Your task to perform on an android device: change timer sound Image 0: 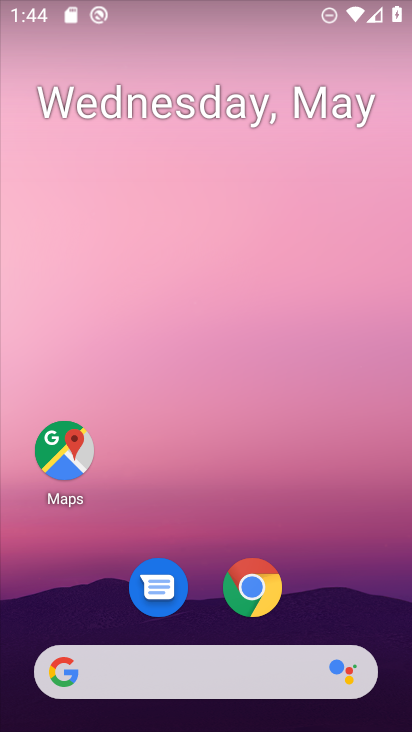
Step 0: drag from (311, 597) to (322, 203)
Your task to perform on an android device: change timer sound Image 1: 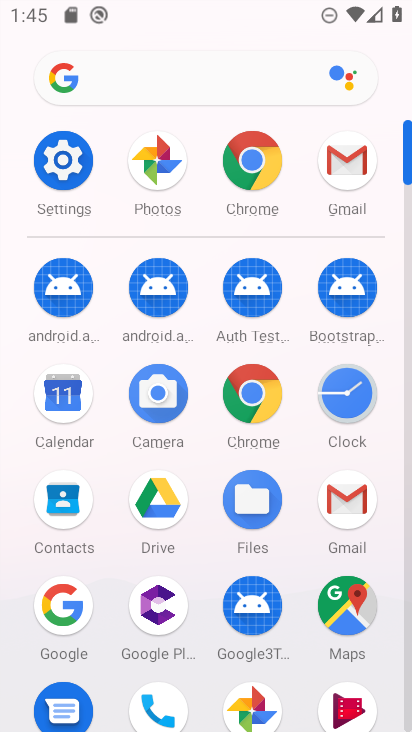
Step 1: drag from (274, 639) to (267, 373)
Your task to perform on an android device: change timer sound Image 2: 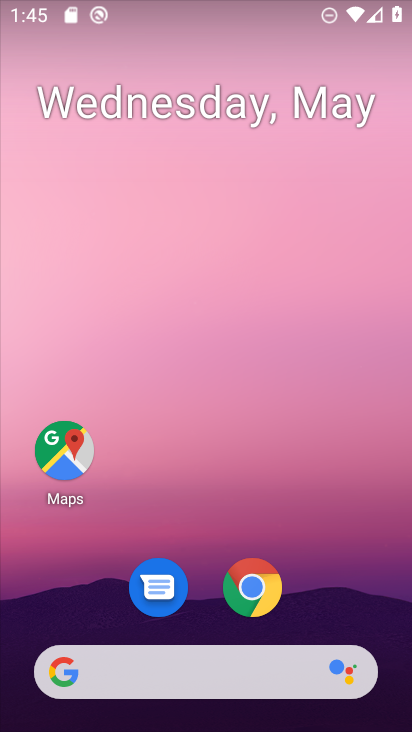
Step 2: click (347, 412)
Your task to perform on an android device: change timer sound Image 3: 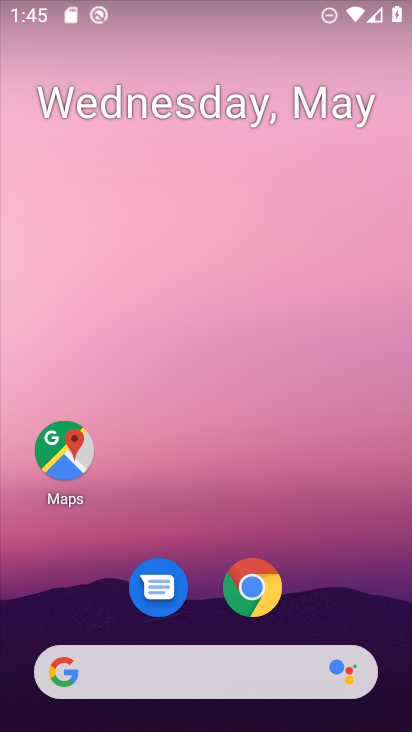
Step 3: click (313, 184)
Your task to perform on an android device: change timer sound Image 4: 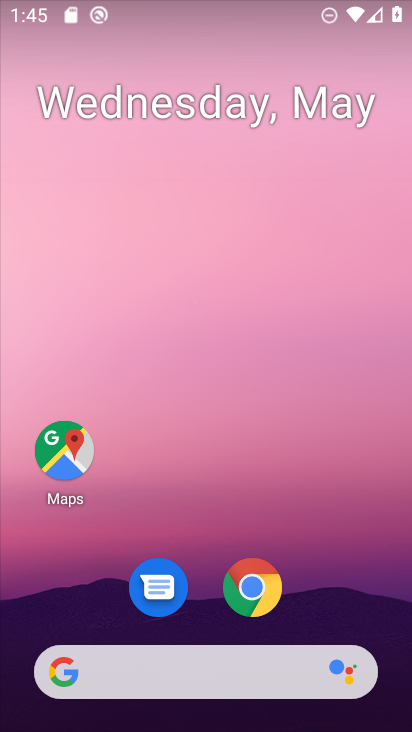
Step 4: drag from (198, 605) to (199, 189)
Your task to perform on an android device: change timer sound Image 5: 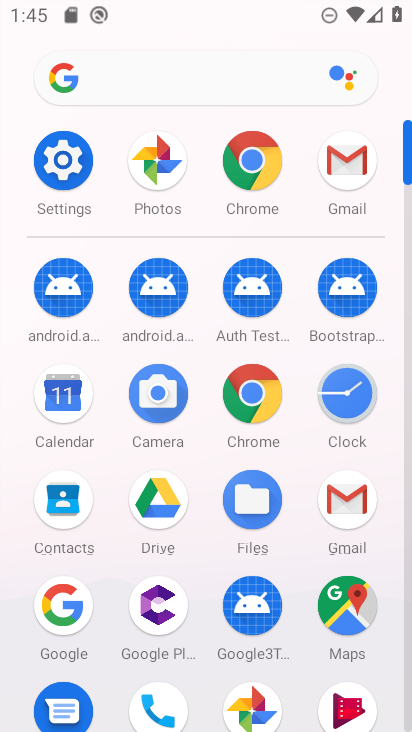
Step 5: click (350, 442)
Your task to perform on an android device: change timer sound Image 6: 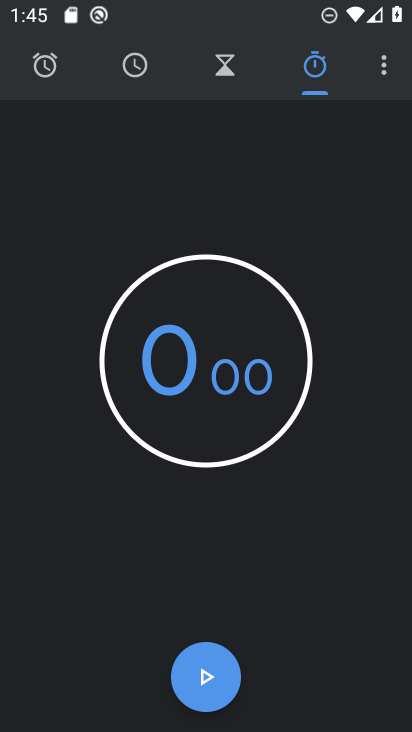
Step 6: click (390, 70)
Your task to perform on an android device: change timer sound Image 7: 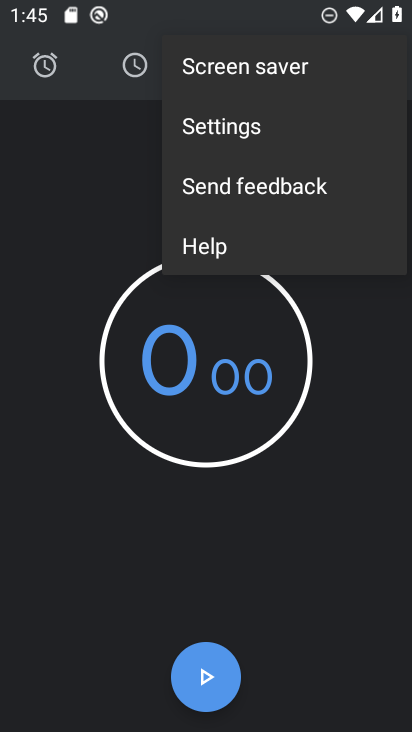
Step 7: click (241, 112)
Your task to perform on an android device: change timer sound Image 8: 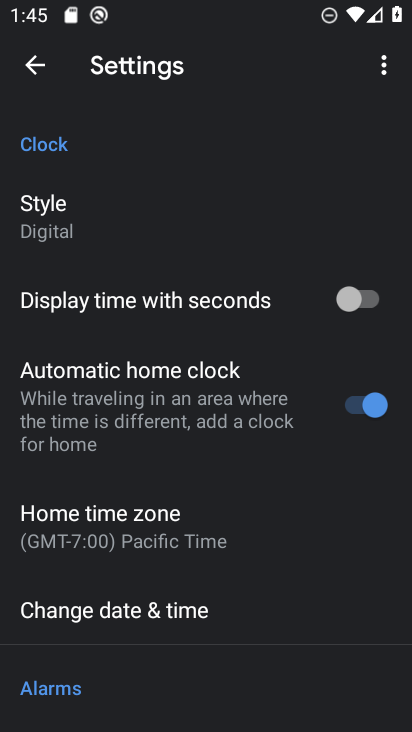
Step 8: drag from (182, 570) to (221, 291)
Your task to perform on an android device: change timer sound Image 9: 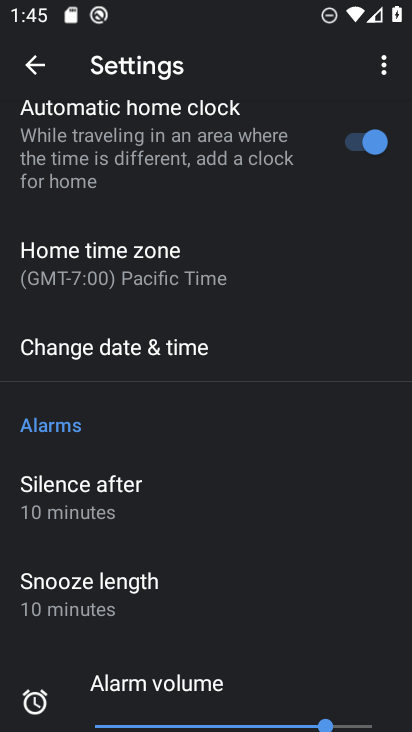
Step 9: drag from (147, 586) to (174, 279)
Your task to perform on an android device: change timer sound Image 10: 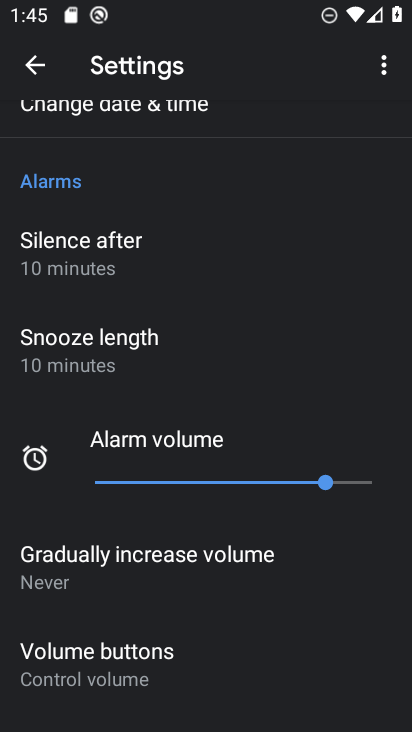
Step 10: drag from (144, 663) to (157, 319)
Your task to perform on an android device: change timer sound Image 11: 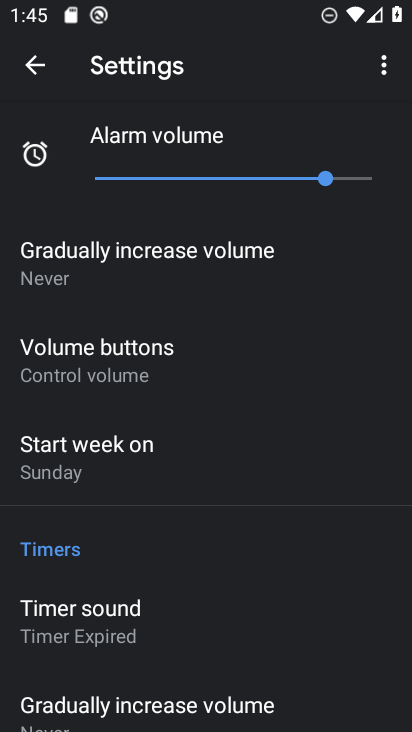
Step 11: click (93, 633)
Your task to perform on an android device: change timer sound Image 12: 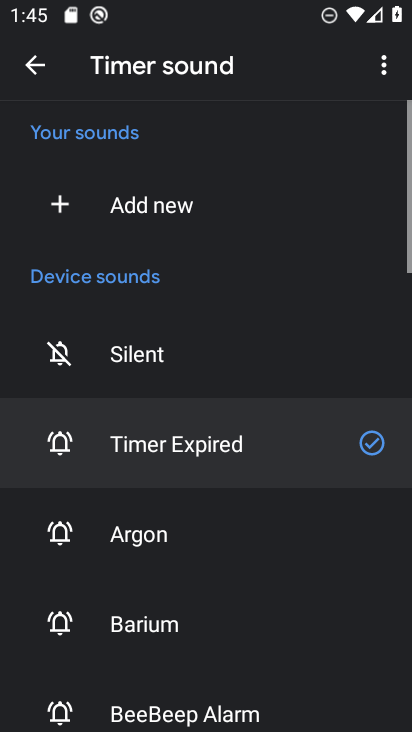
Step 12: click (74, 543)
Your task to perform on an android device: change timer sound Image 13: 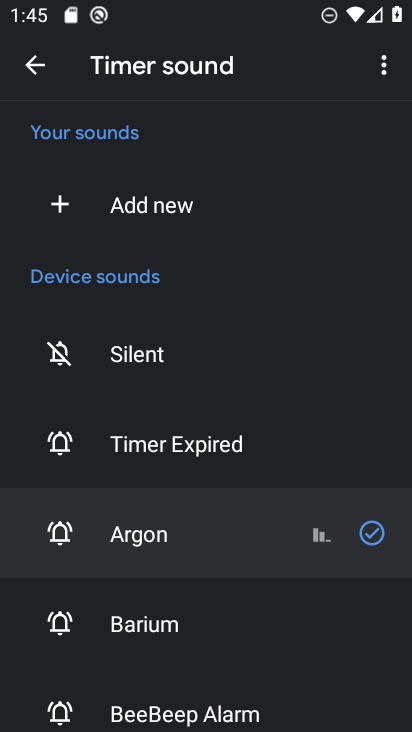
Step 13: task complete